Your task to perform on an android device: turn off notifications settings in the gmail app Image 0: 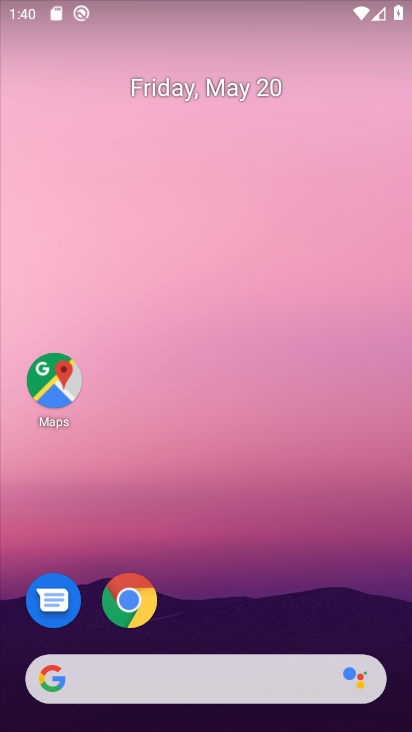
Step 0: drag from (211, 615) to (272, 5)
Your task to perform on an android device: turn off notifications settings in the gmail app Image 1: 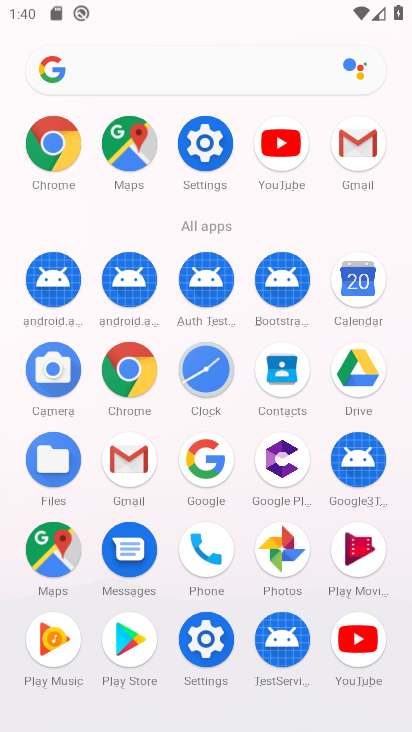
Step 1: click (141, 475)
Your task to perform on an android device: turn off notifications settings in the gmail app Image 2: 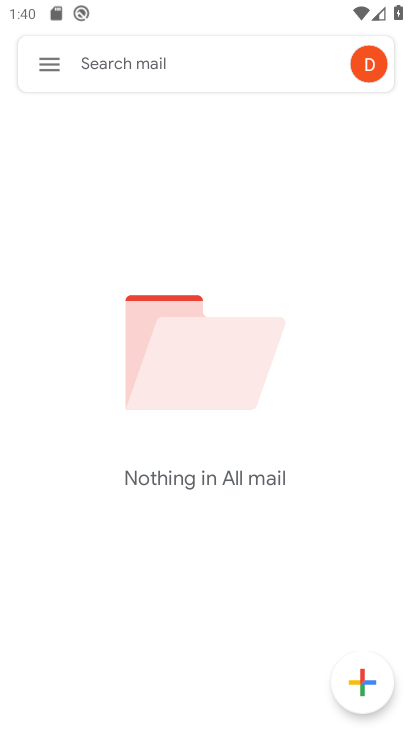
Step 2: click (38, 64)
Your task to perform on an android device: turn off notifications settings in the gmail app Image 3: 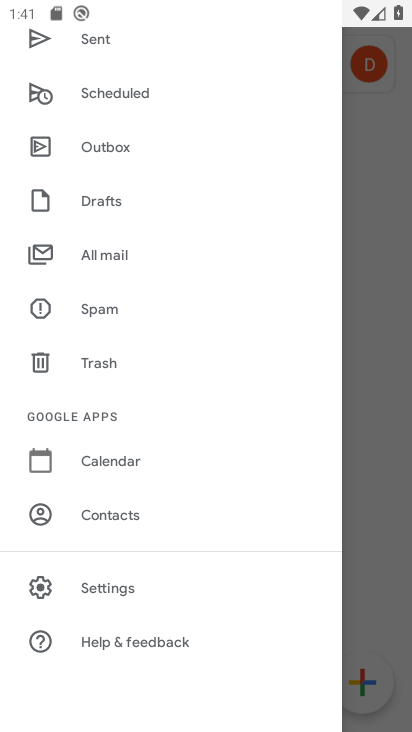
Step 3: click (123, 594)
Your task to perform on an android device: turn off notifications settings in the gmail app Image 4: 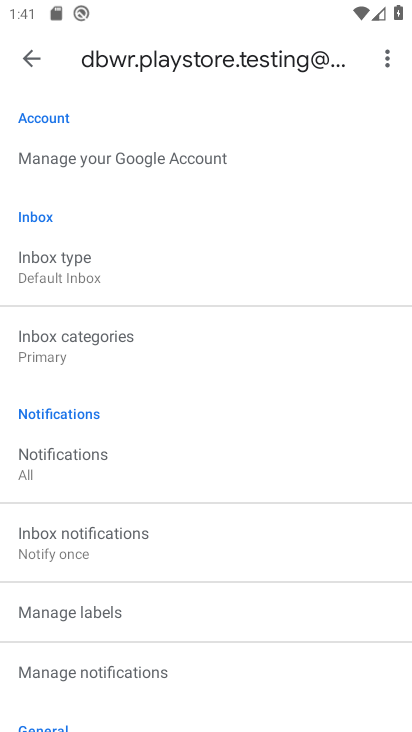
Step 4: click (31, 60)
Your task to perform on an android device: turn off notifications settings in the gmail app Image 5: 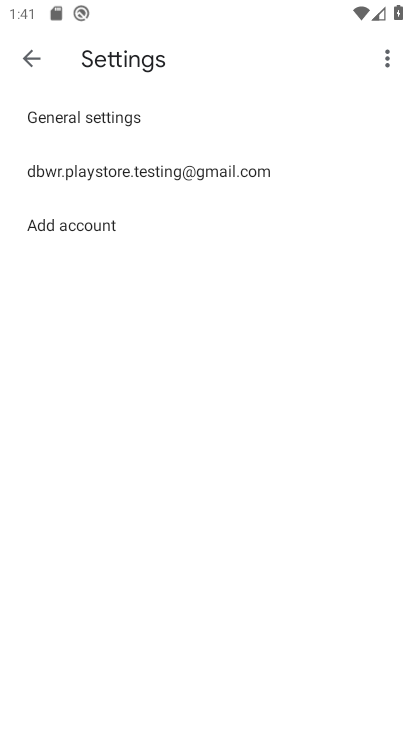
Step 5: click (123, 120)
Your task to perform on an android device: turn off notifications settings in the gmail app Image 6: 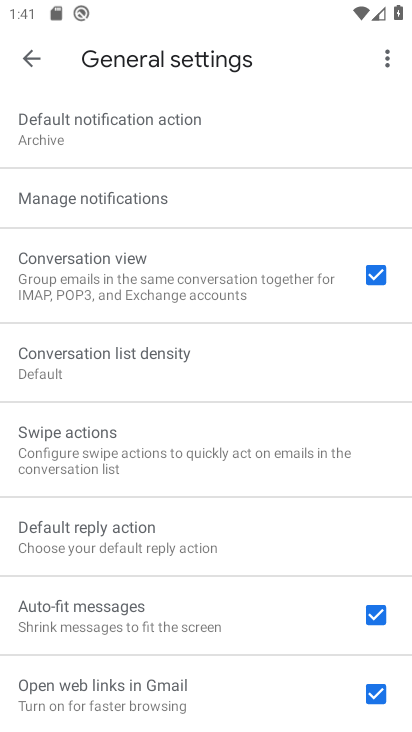
Step 6: click (114, 188)
Your task to perform on an android device: turn off notifications settings in the gmail app Image 7: 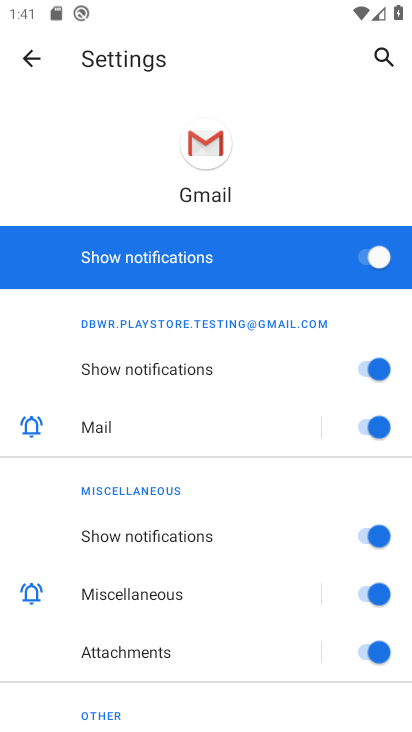
Step 7: click (362, 270)
Your task to perform on an android device: turn off notifications settings in the gmail app Image 8: 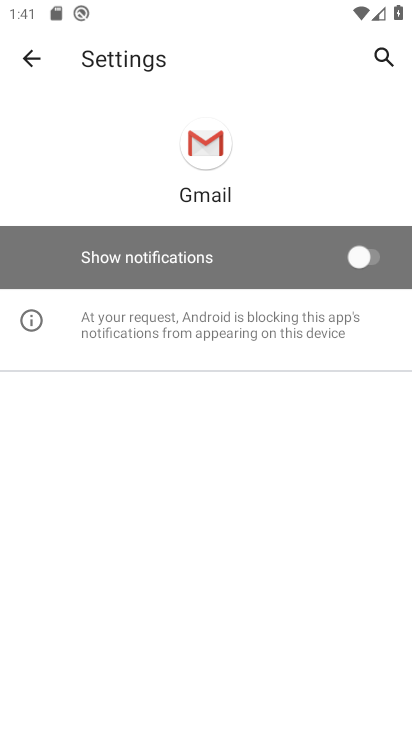
Step 8: task complete